Your task to perform on an android device: empty trash in the gmail app Image 0: 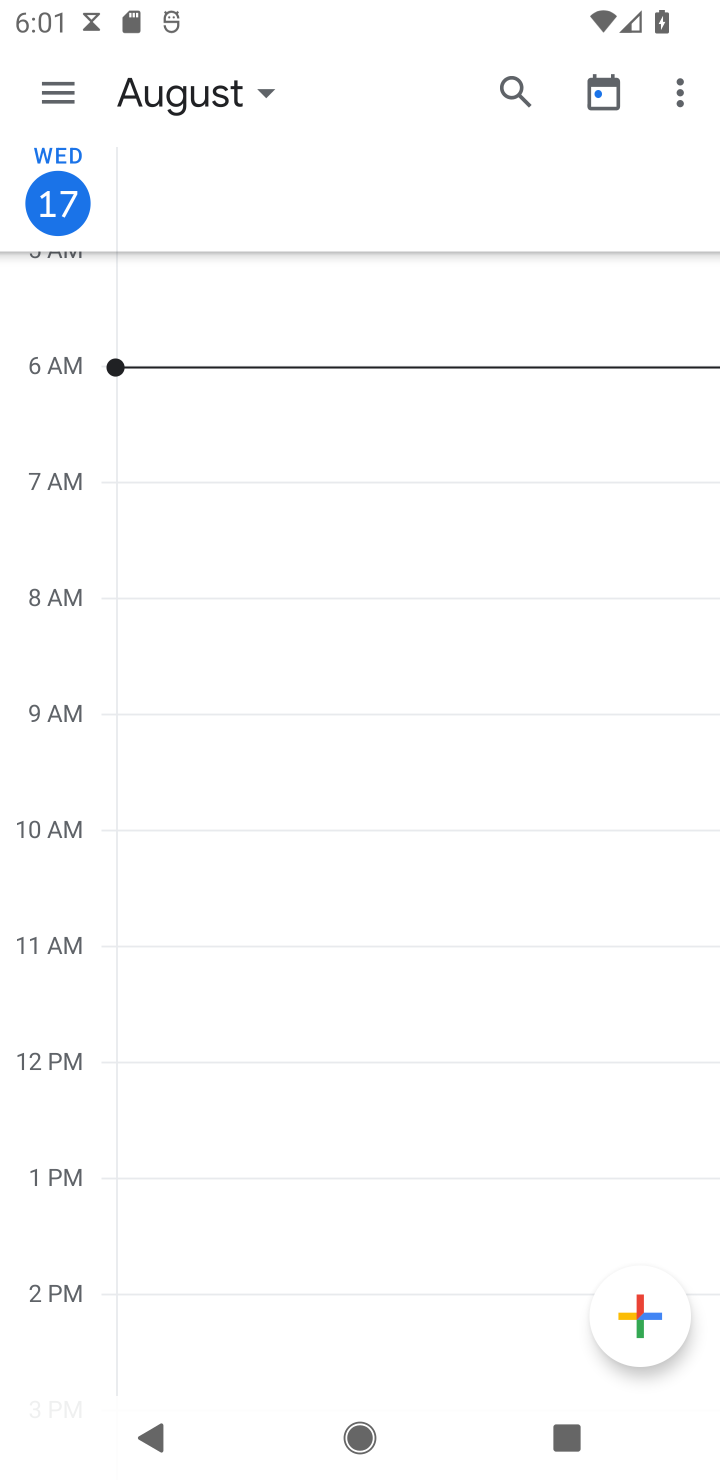
Step 0: press home button
Your task to perform on an android device: empty trash in the gmail app Image 1: 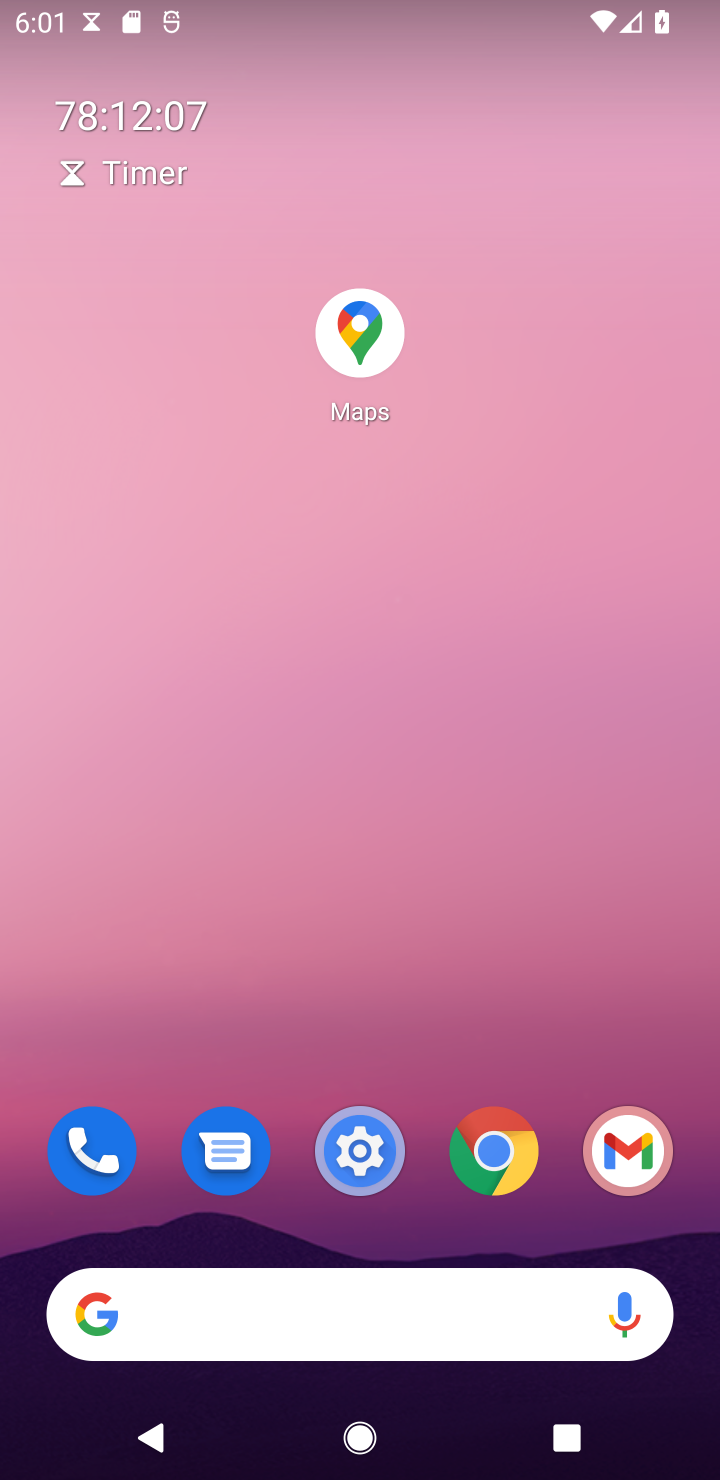
Step 1: drag from (339, 1131) to (439, 165)
Your task to perform on an android device: empty trash in the gmail app Image 2: 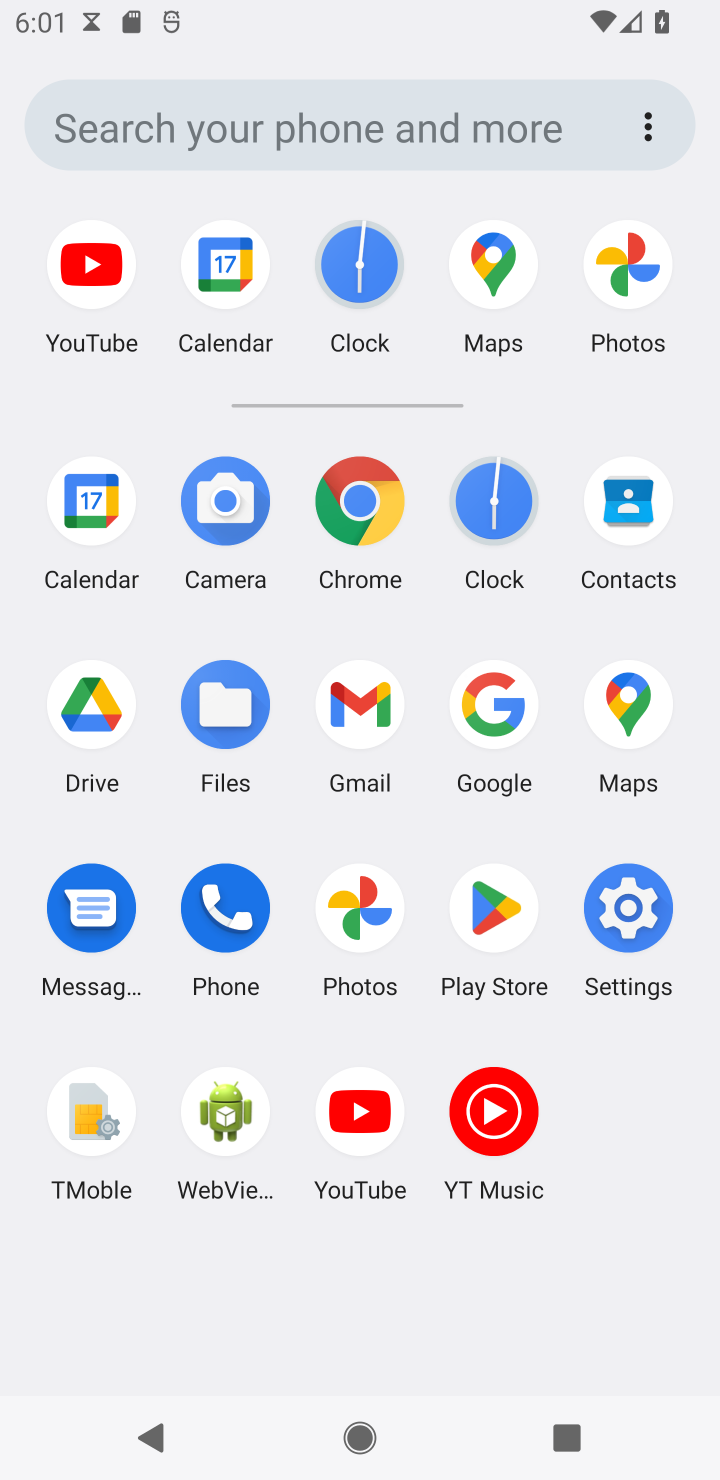
Step 2: click (361, 708)
Your task to perform on an android device: empty trash in the gmail app Image 3: 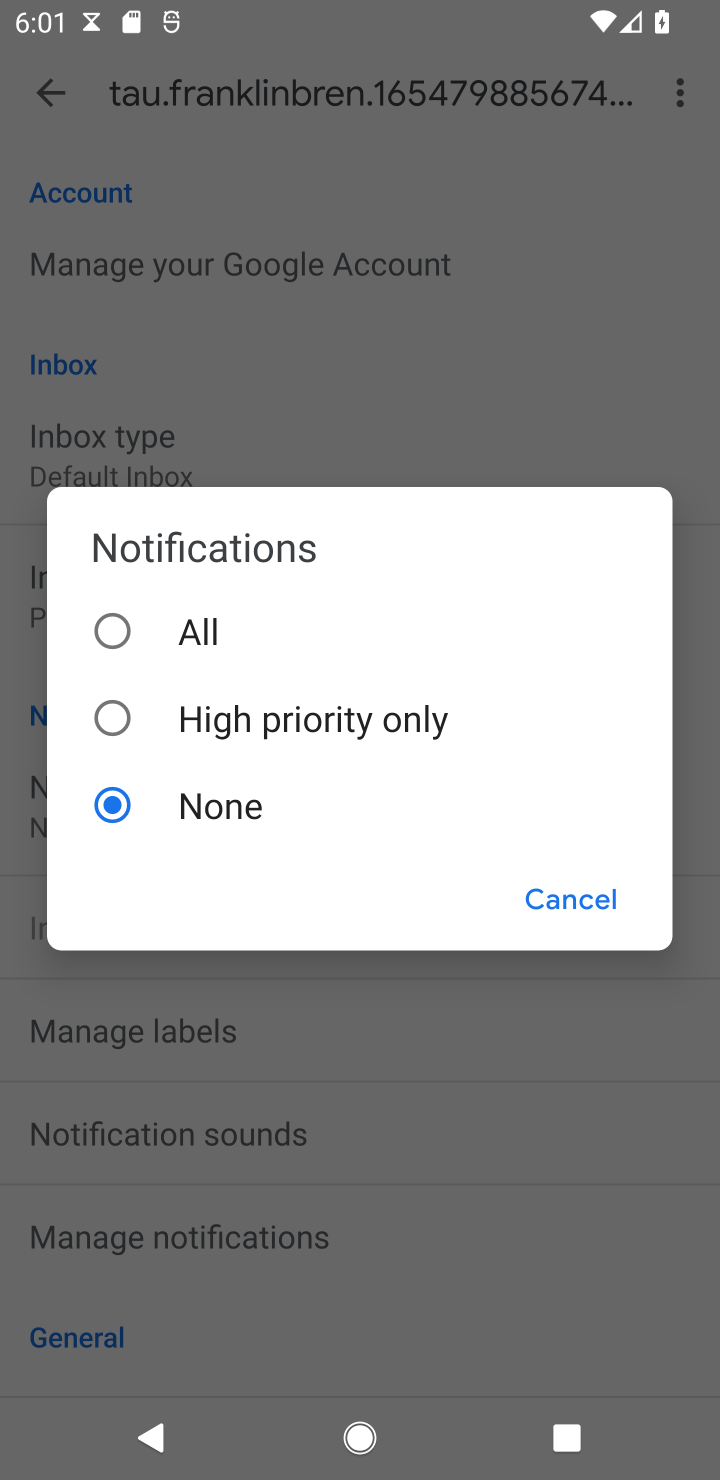
Step 3: click (139, 330)
Your task to perform on an android device: empty trash in the gmail app Image 4: 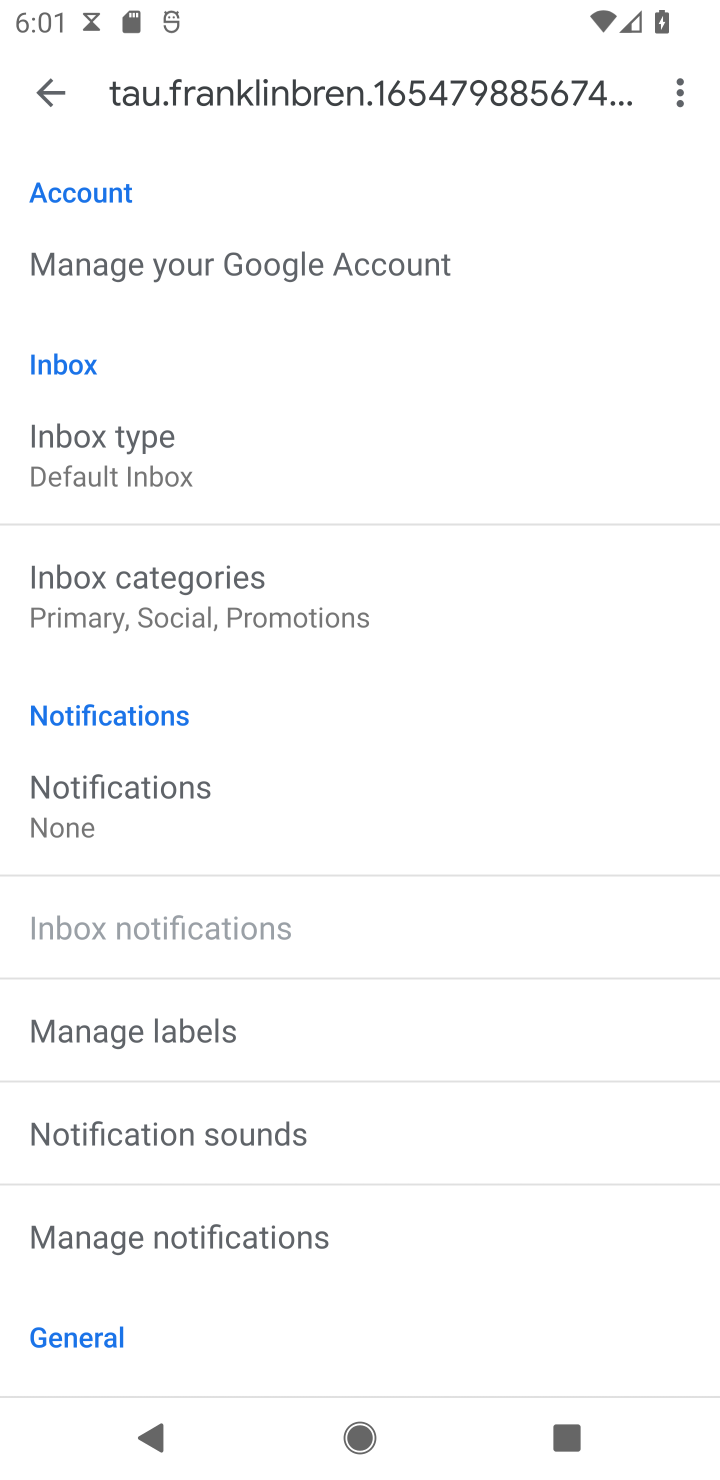
Step 4: click (63, 81)
Your task to perform on an android device: empty trash in the gmail app Image 5: 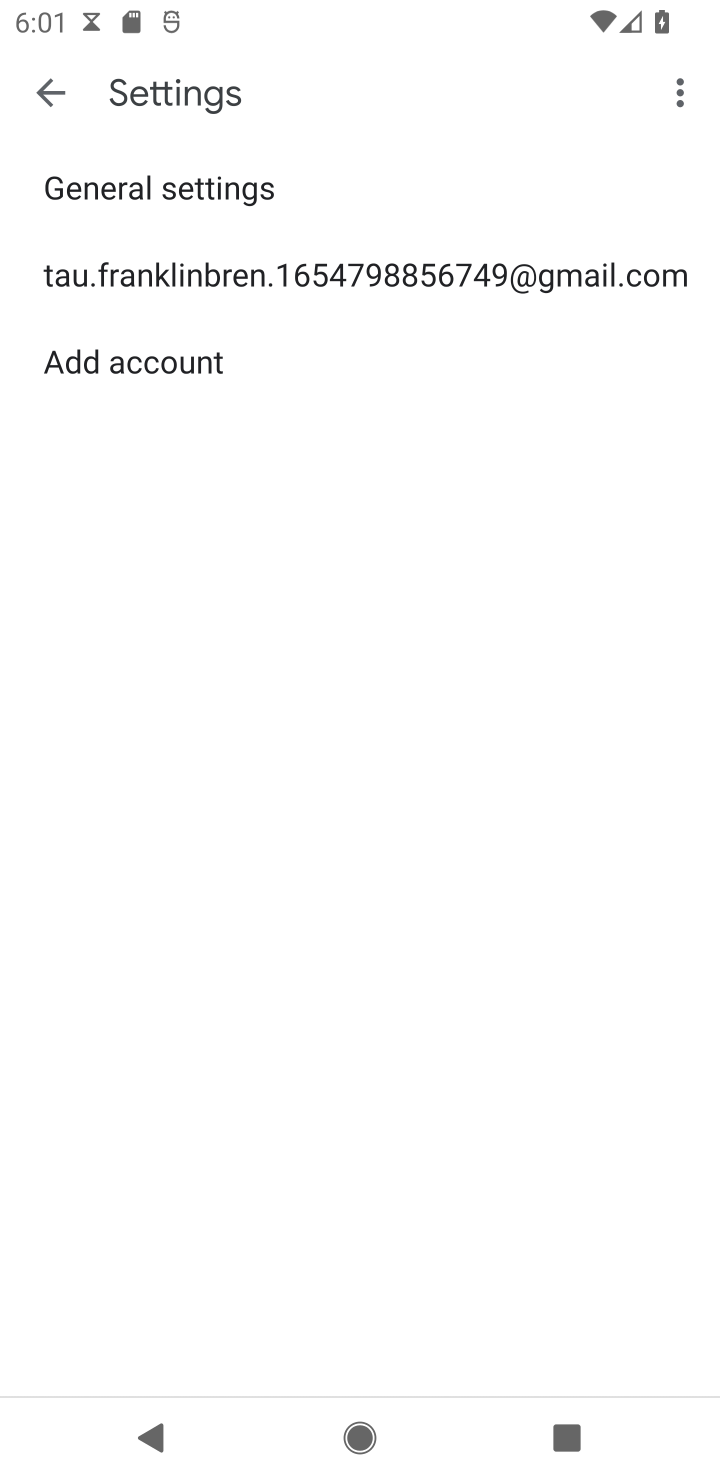
Step 5: click (63, 81)
Your task to perform on an android device: empty trash in the gmail app Image 6: 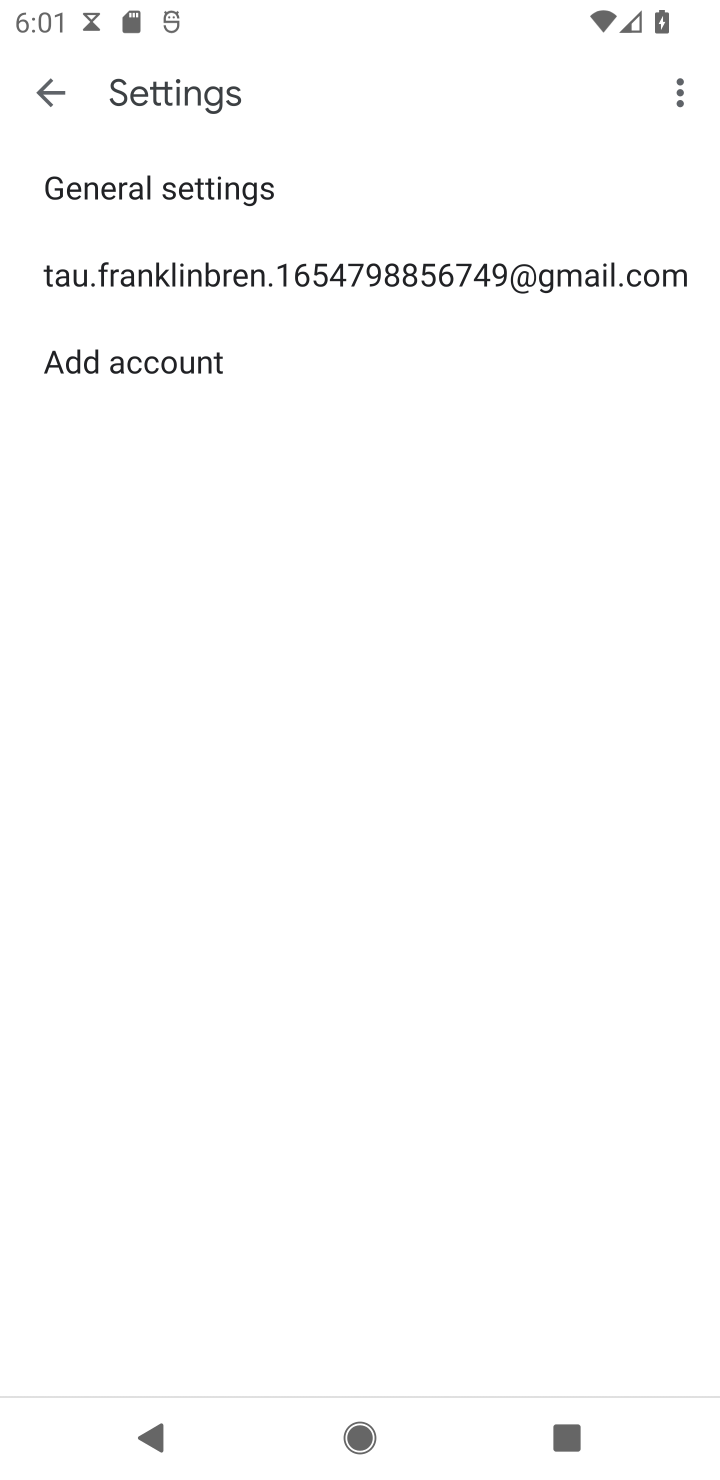
Step 6: click (63, 84)
Your task to perform on an android device: empty trash in the gmail app Image 7: 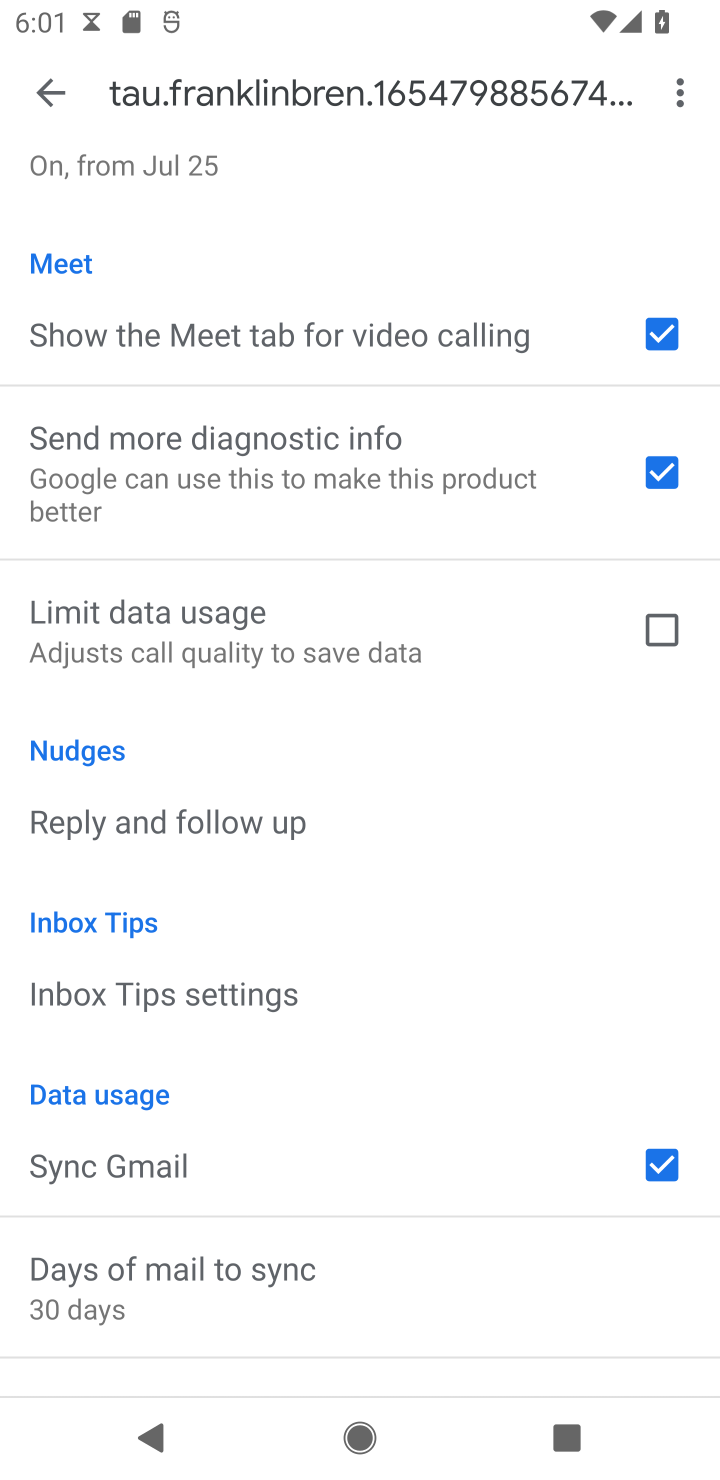
Step 7: click (45, 91)
Your task to perform on an android device: empty trash in the gmail app Image 8: 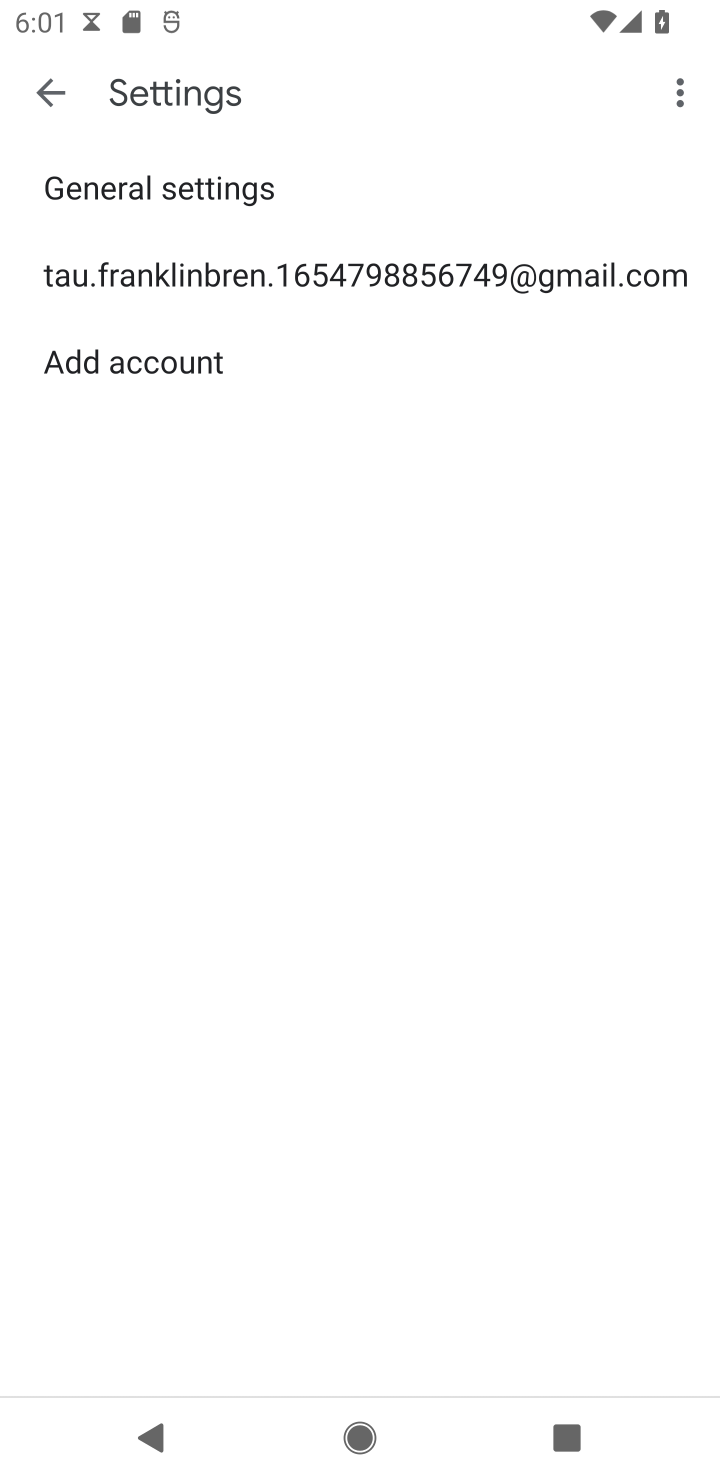
Step 8: click (45, 91)
Your task to perform on an android device: empty trash in the gmail app Image 9: 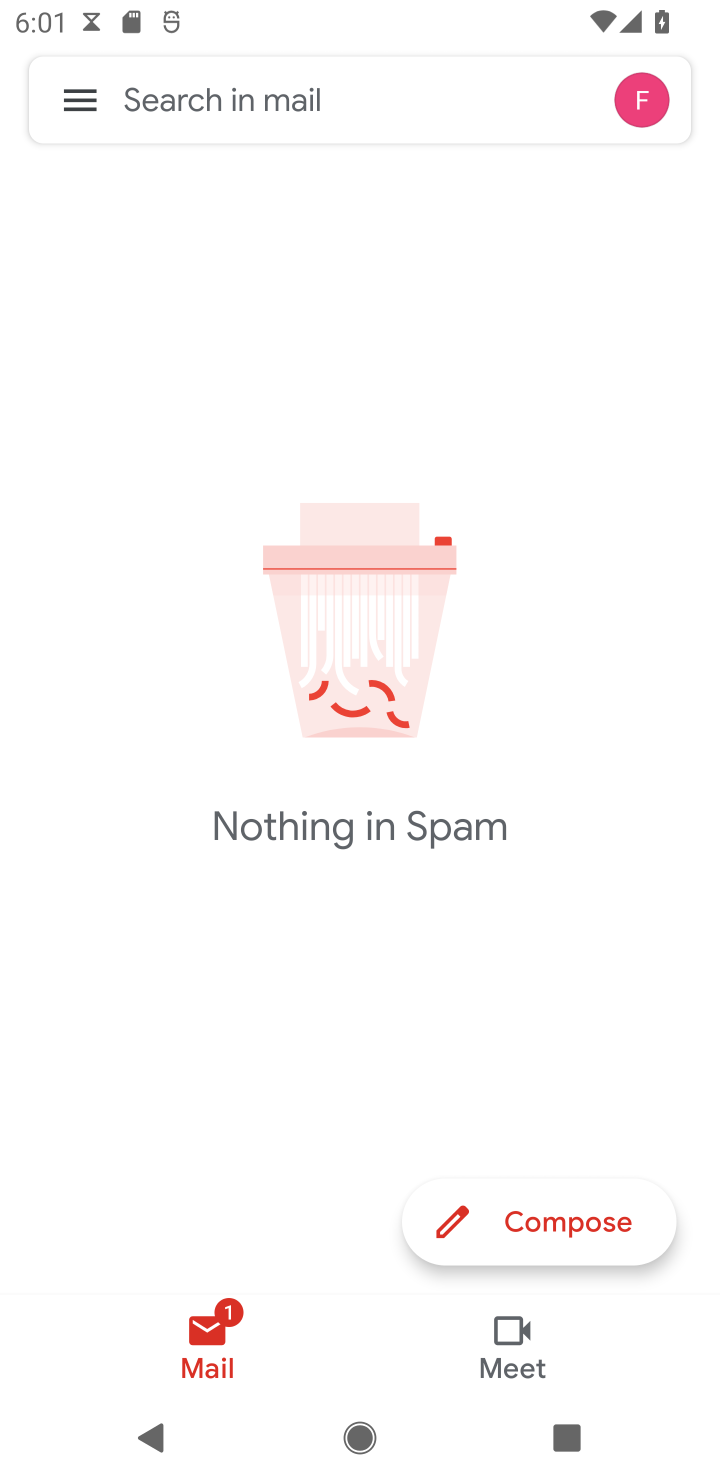
Step 9: click (45, 91)
Your task to perform on an android device: empty trash in the gmail app Image 10: 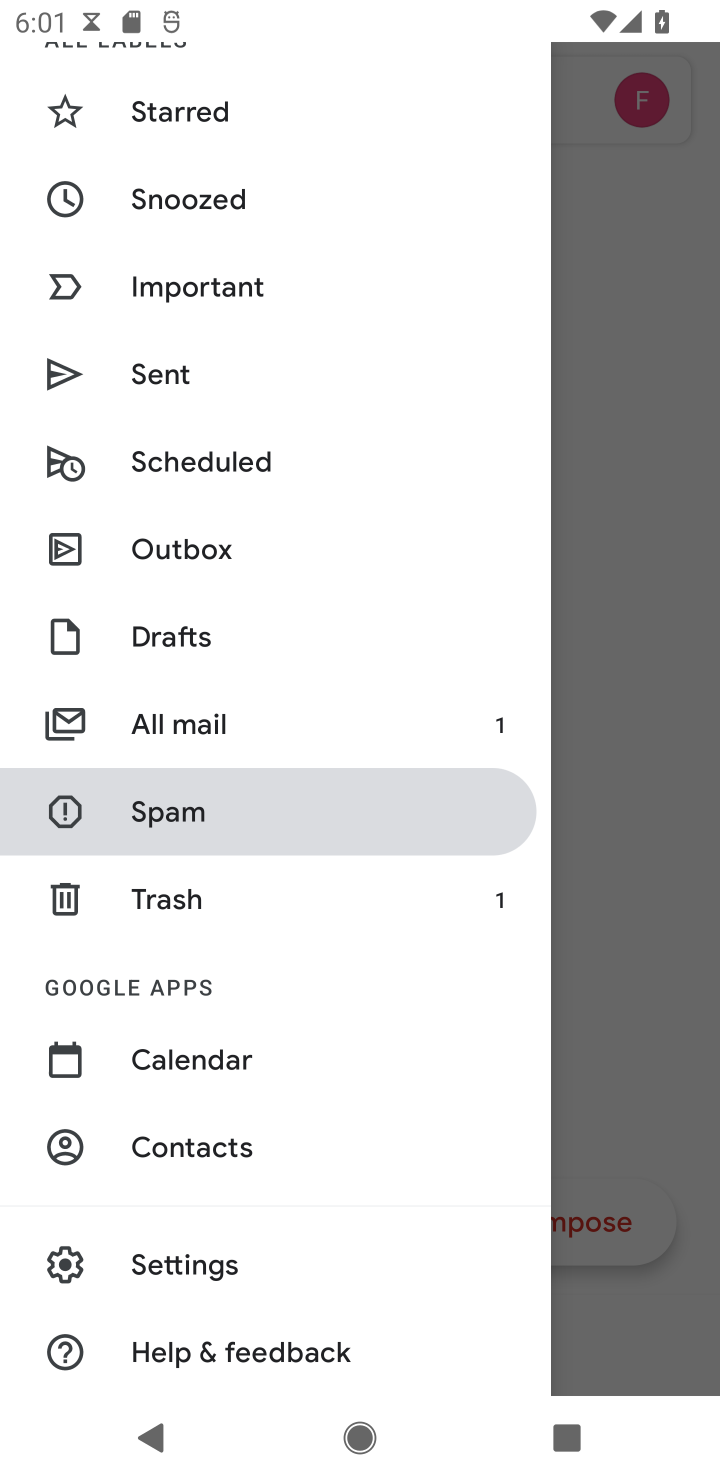
Step 10: click (154, 888)
Your task to perform on an android device: empty trash in the gmail app Image 11: 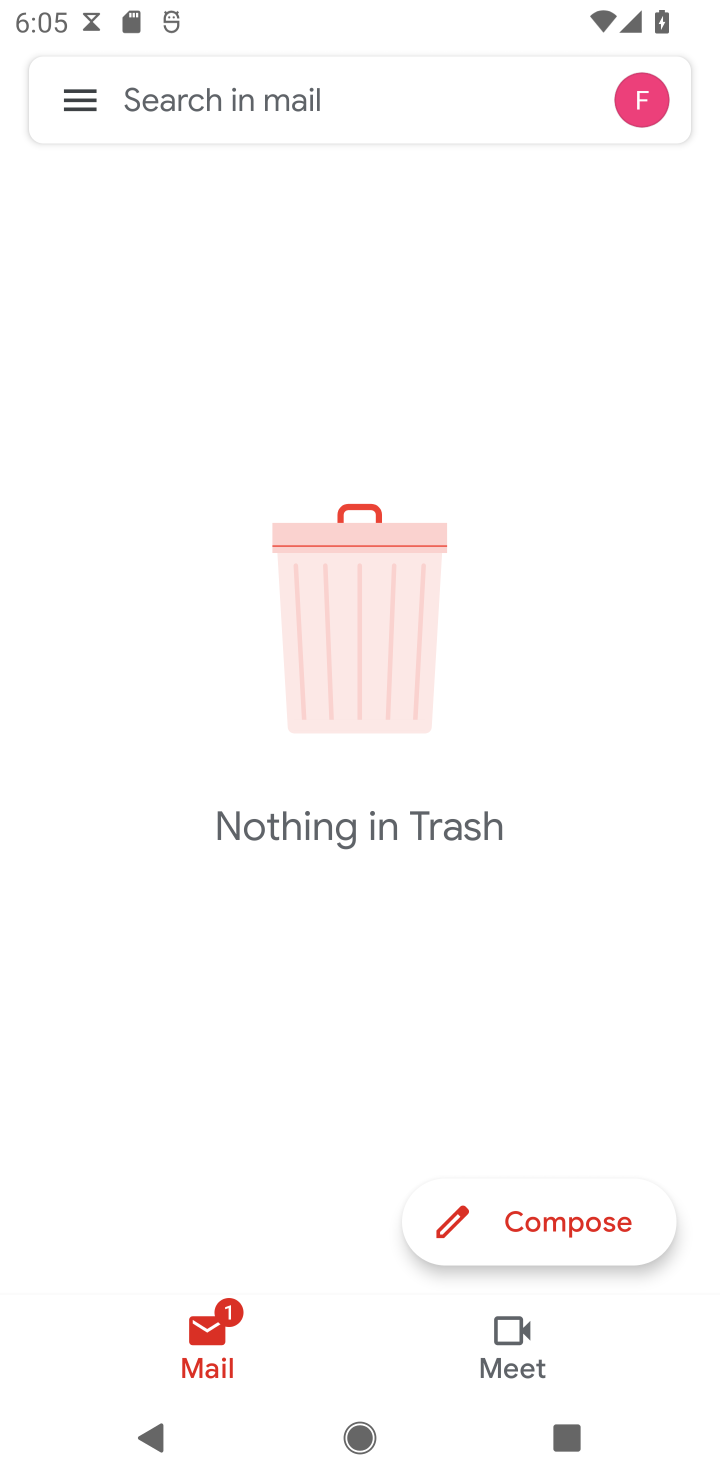
Step 11: task complete